Your task to perform on an android device: change the clock style Image 0: 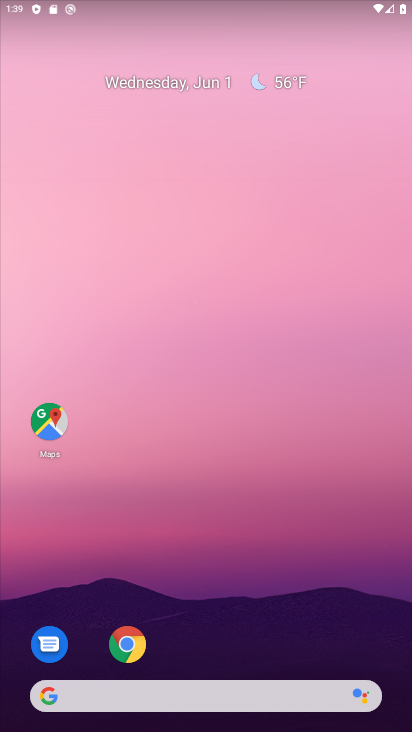
Step 0: drag from (271, 604) to (261, 41)
Your task to perform on an android device: change the clock style Image 1: 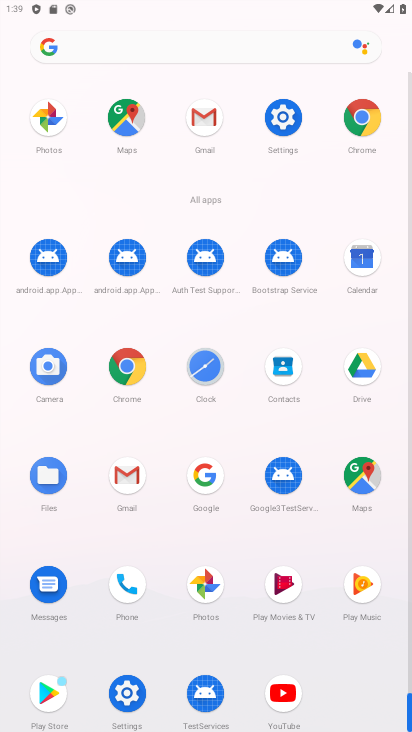
Step 1: click (201, 367)
Your task to perform on an android device: change the clock style Image 2: 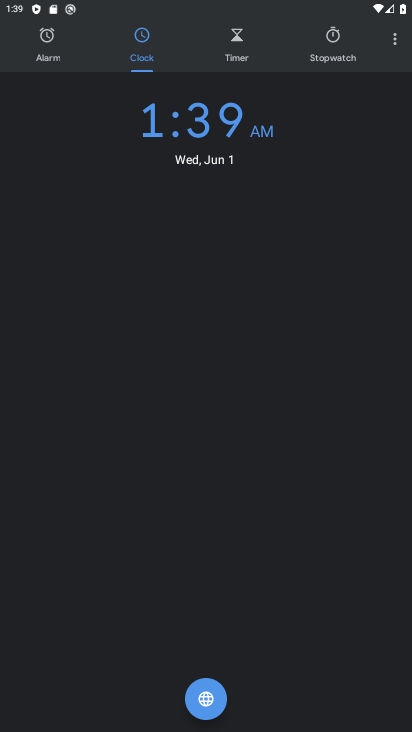
Step 2: drag from (392, 40) to (363, 82)
Your task to perform on an android device: change the clock style Image 3: 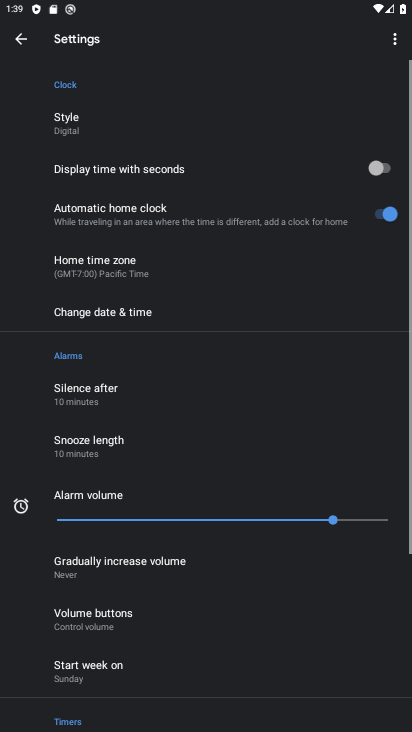
Step 3: click (141, 126)
Your task to perform on an android device: change the clock style Image 4: 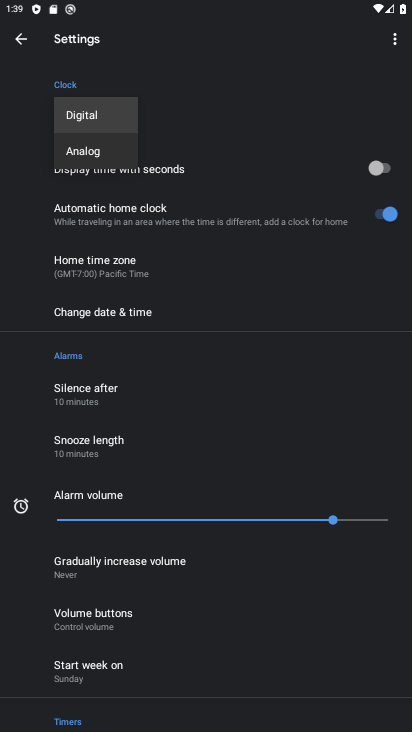
Step 4: click (118, 141)
Your task to perform on an android device: change the clock style Image 5: 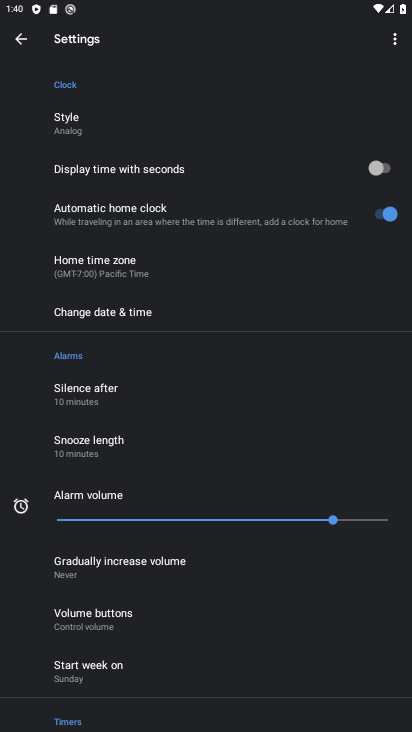
Step 5: task complete